Your task to perform on an android device: open app "Microsoft Authenticator" Image 0: 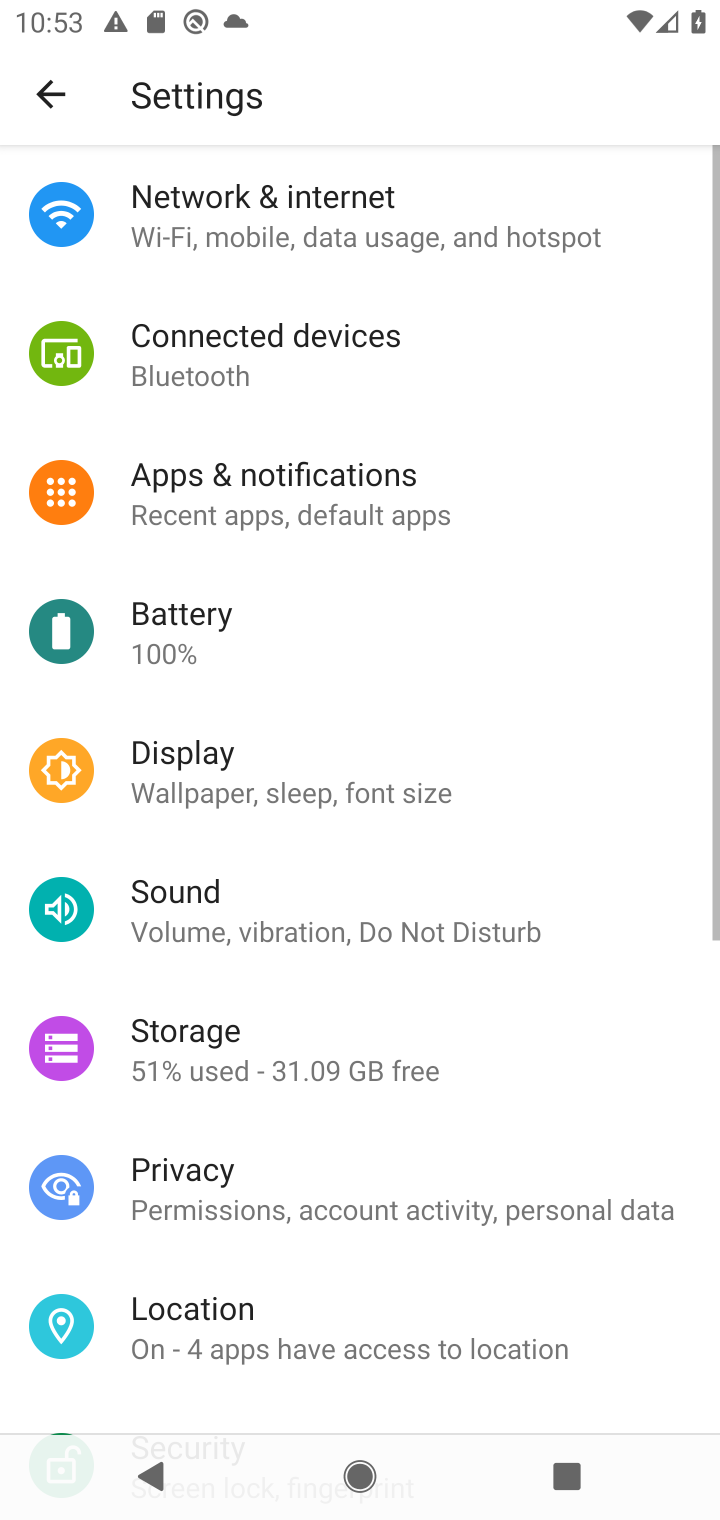
Step 0: press home button
Your task to perform on an android device: open app "Microsoft Authenticator" Image 1: 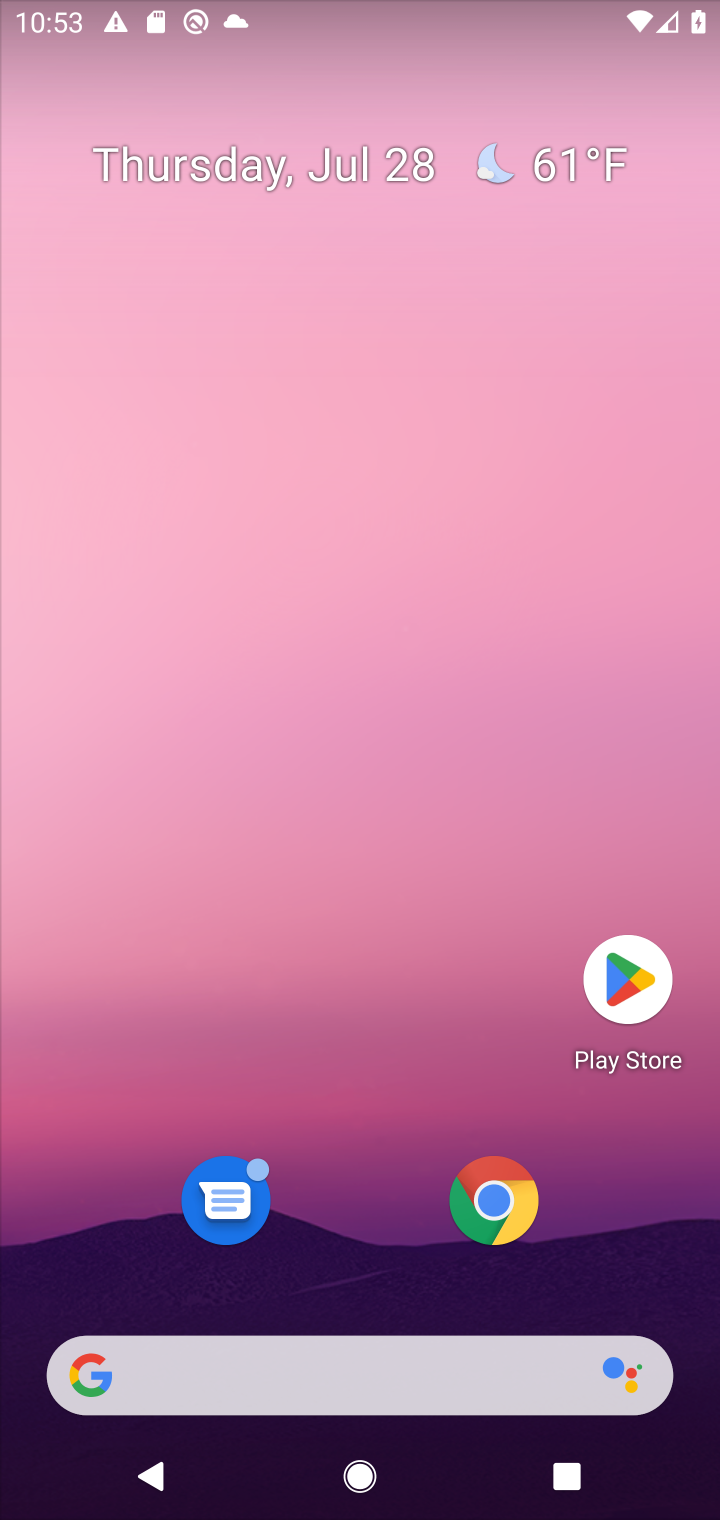
Step 1: click (640, 991)
Your task to perform on an android device: open app "Microsoft Authenticator" Image 2: 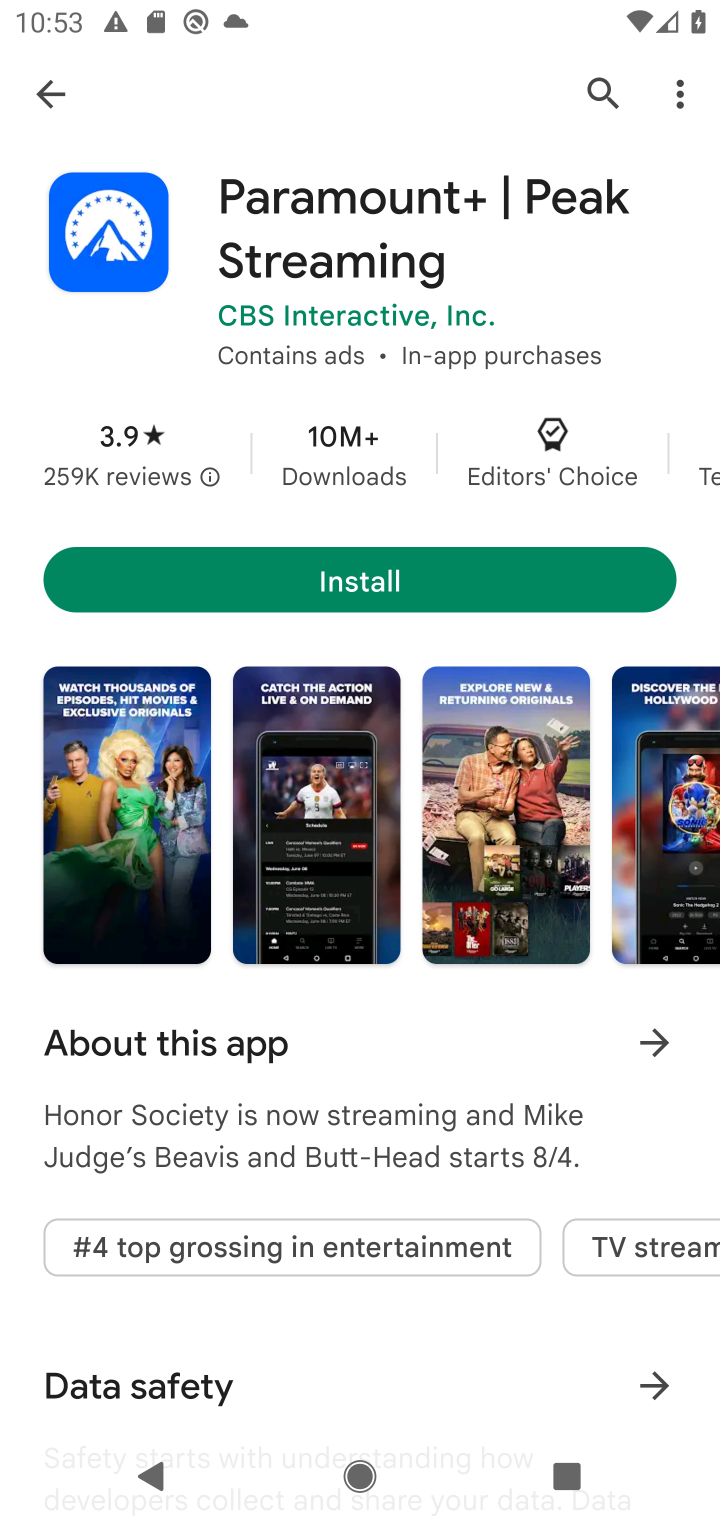
Step 2: click (607, 79)
Your task to perform on an android device: open app "Microsoft Authenticator" Image 3: 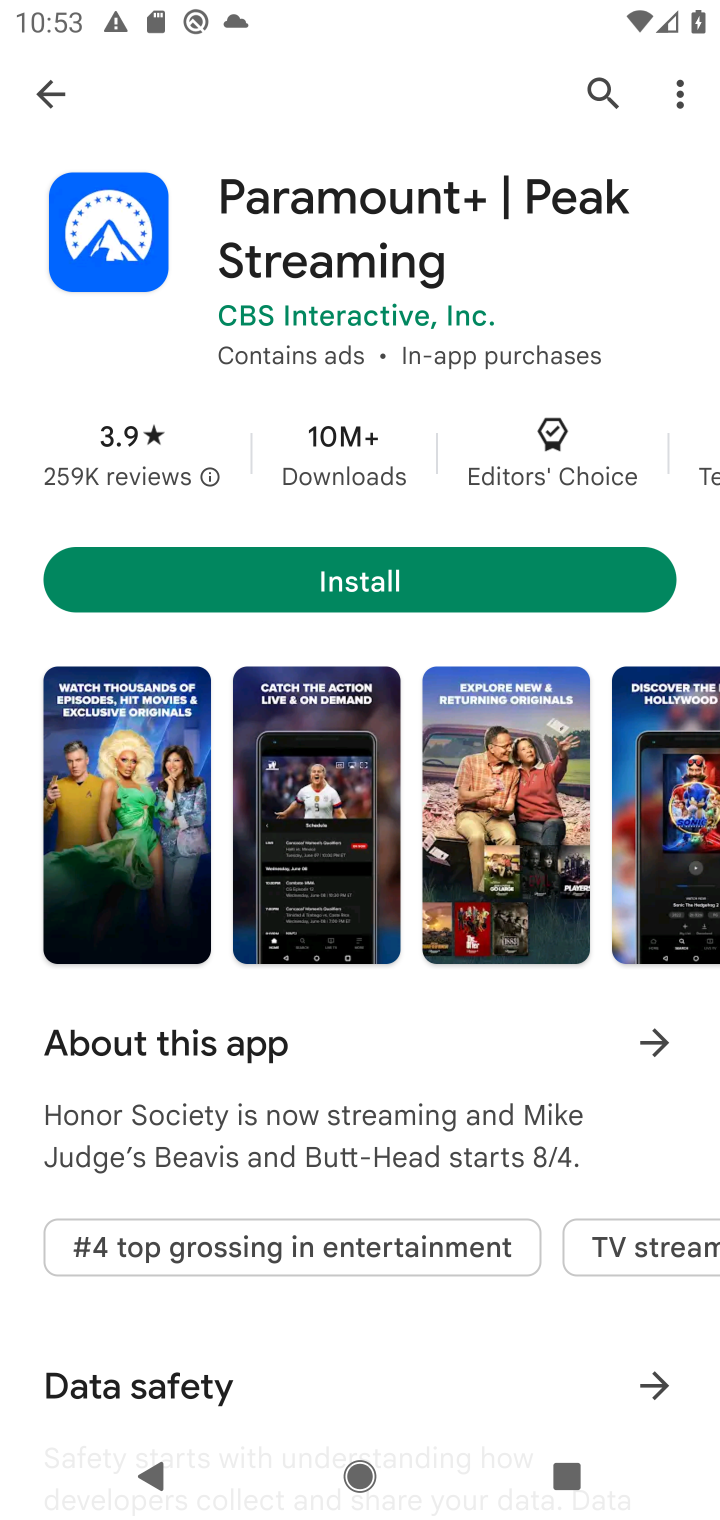
Step 3: click (586, 84)
Your task to perform on an android device: open app "Microsoft Authenticator" Image 4: 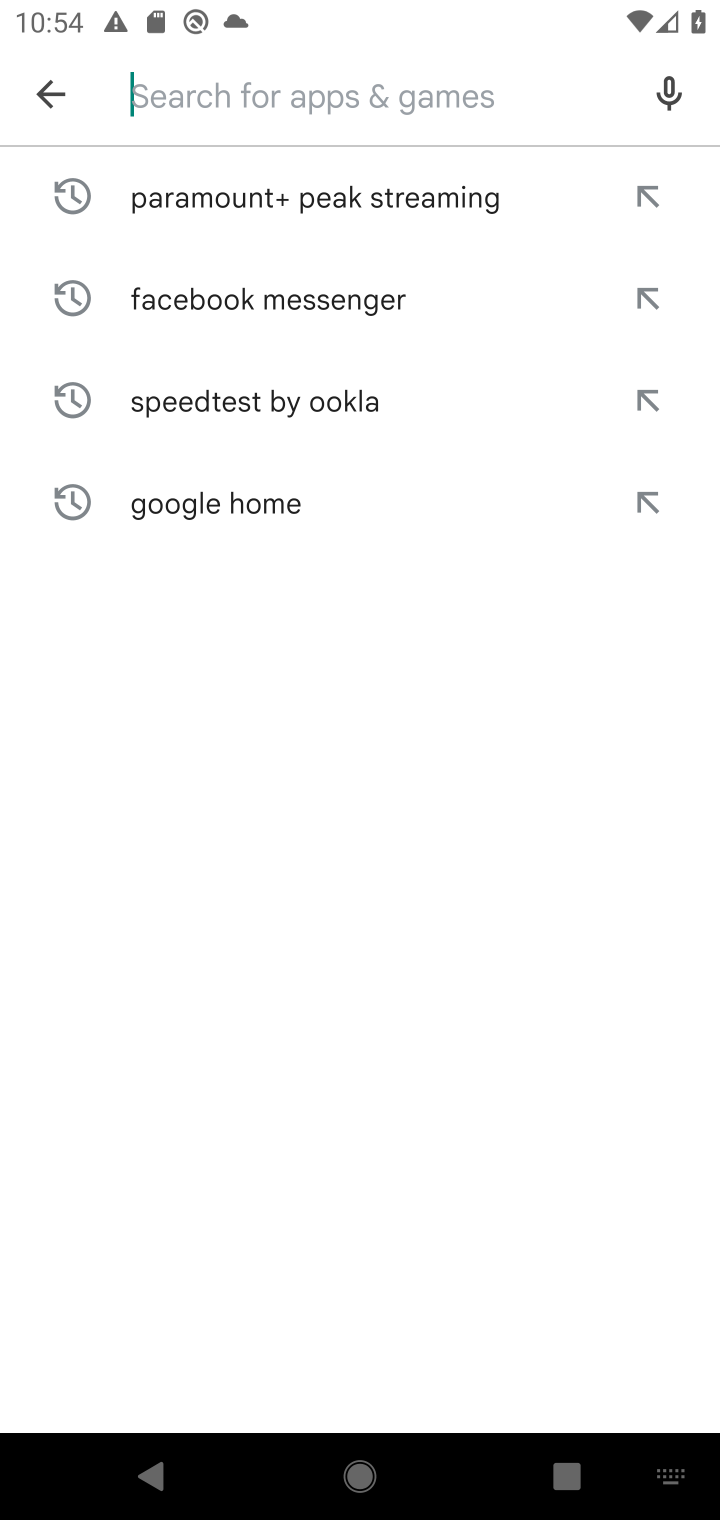
Step 4: type "Microsoft Authenticator"
Your task to perform on an android device: open app "Microsoft Authenticator" Image 5: 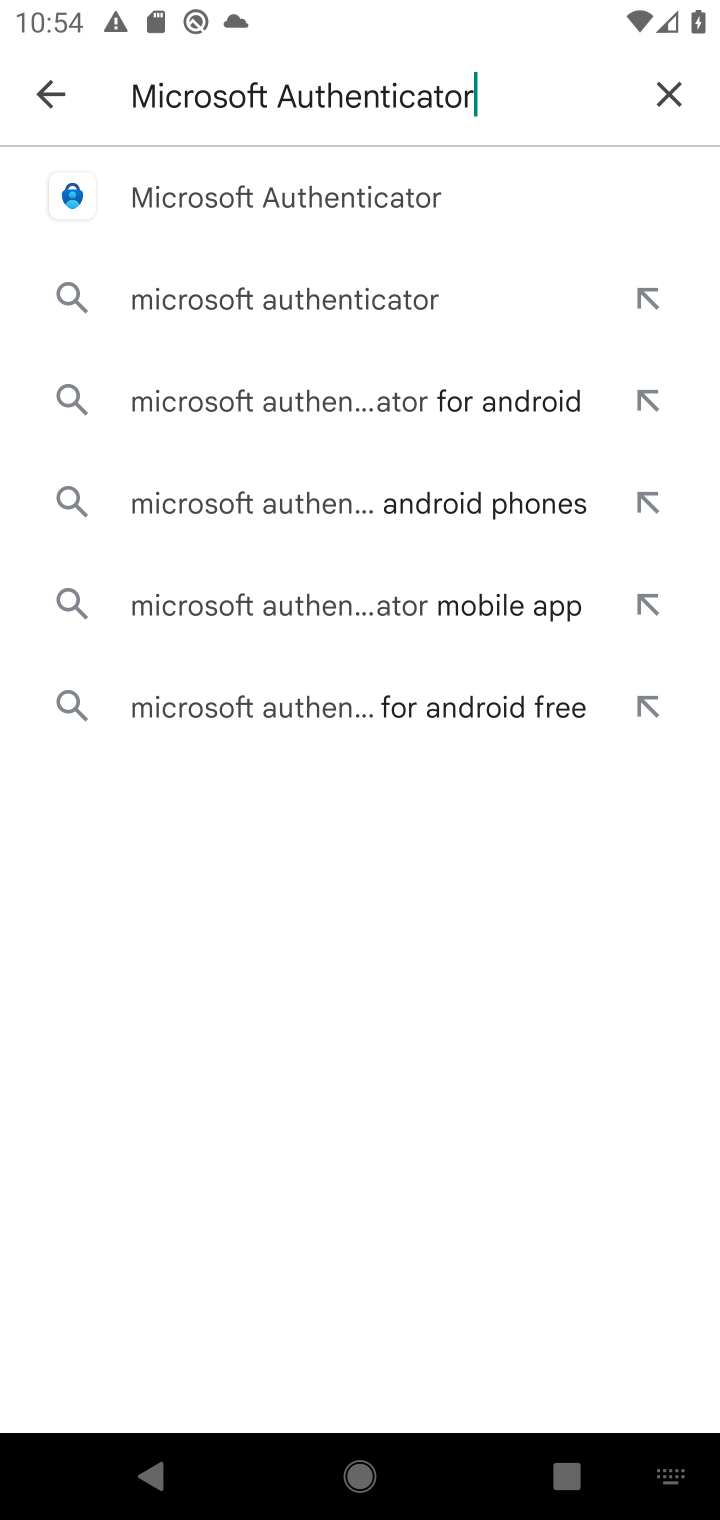
Step 5: click (376, 200)
Your task to perform on an android device: open app "Microsoft Authenticator" Image 6: 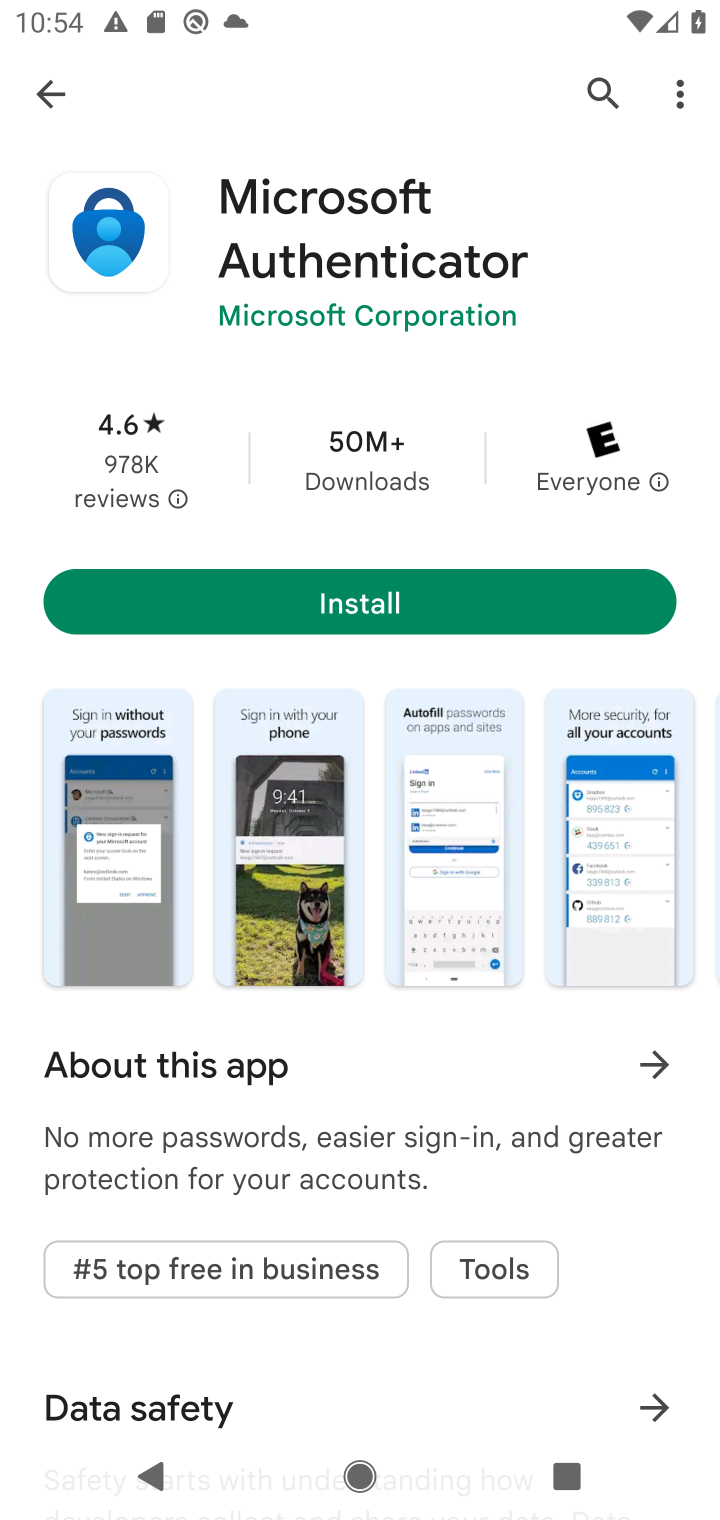
Step 6: task complete